Your task to perform on an android device: Open Chrome and go to settings Image 0: 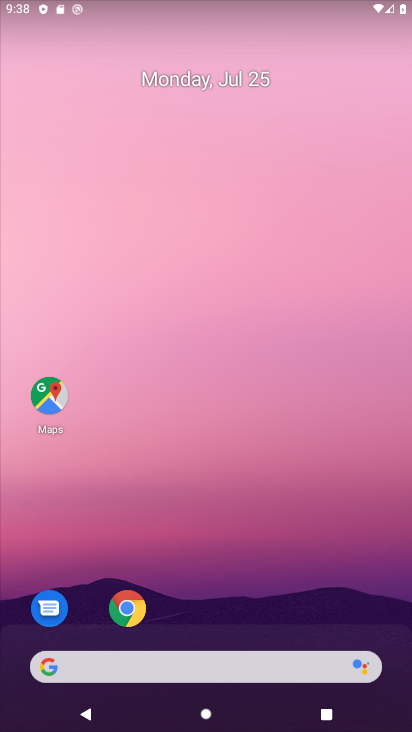
Step 0: drag from (177, 598) to (255, 17)
Your task to perform on an android device: Open Chrome and go to settings Image 1: 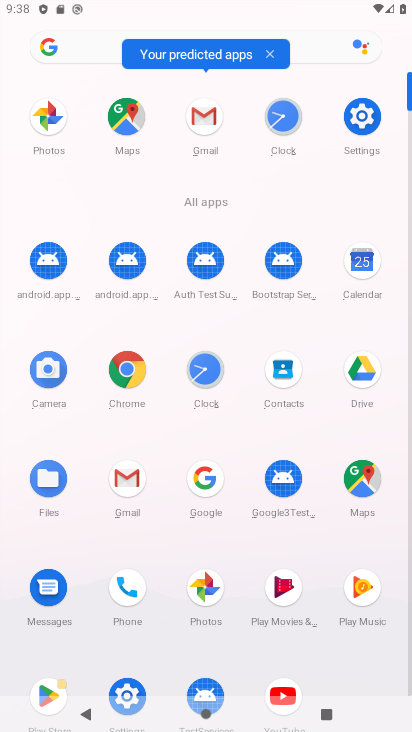
Step 1: click (125, 378)
Your task to perform on an android device: Open Chrome and go to settings Image 2: 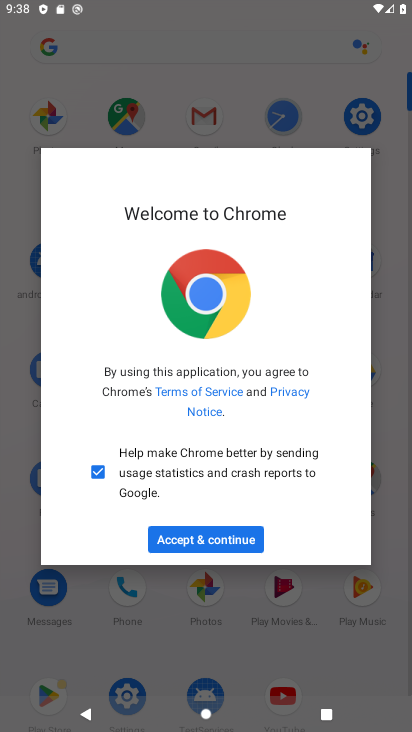
Step 2: click (199, 545)
Your task to perform on an android device: Open Chrome and go to settings Image 3: 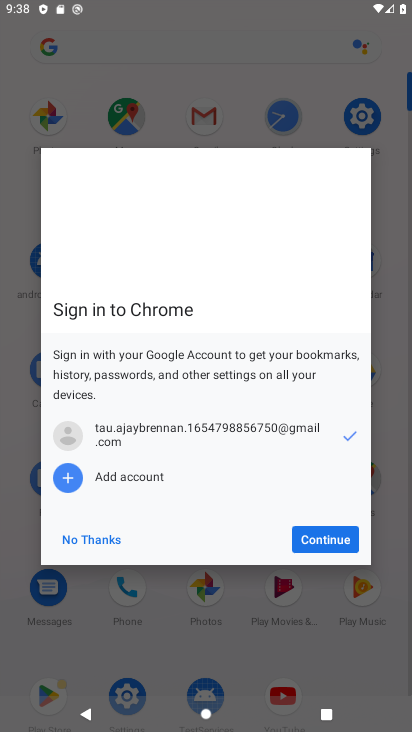
Step 3: click (330, 539)
Your task to perform on an android device: Open Chrome and go to settings Image 4: 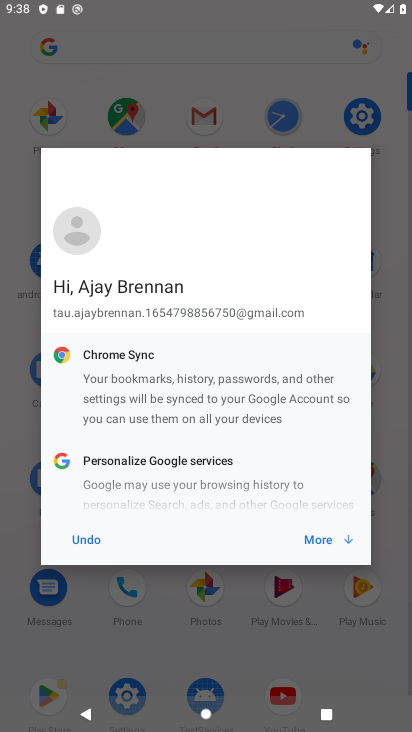
Step 4: click (324, 536)
Your task to perform on an android device: Open Chrome and go to settings Image 5: 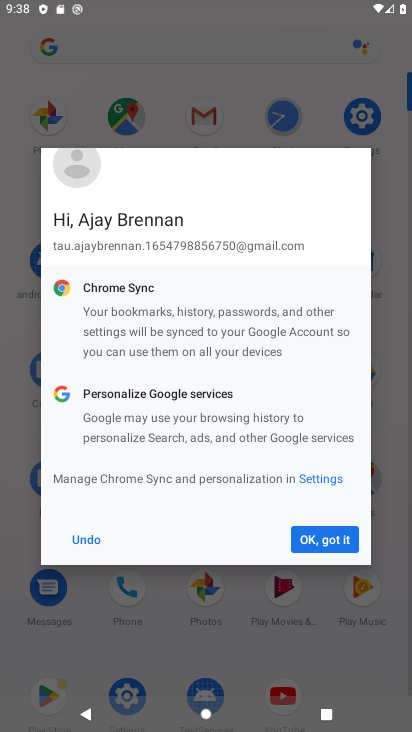
Step 5: click (324, 536)
Your task to perform on an android device: Open Chrome and go to settings Image 6: 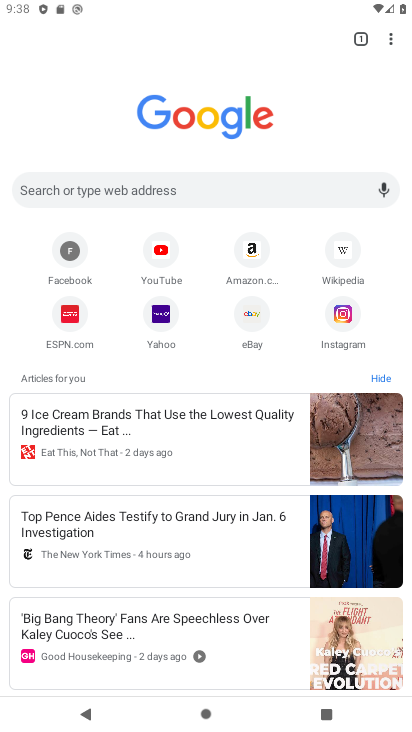
Step 6: click (392, 37)
Your task to perform on an android device: Open Chrome and go to settings Image 7: 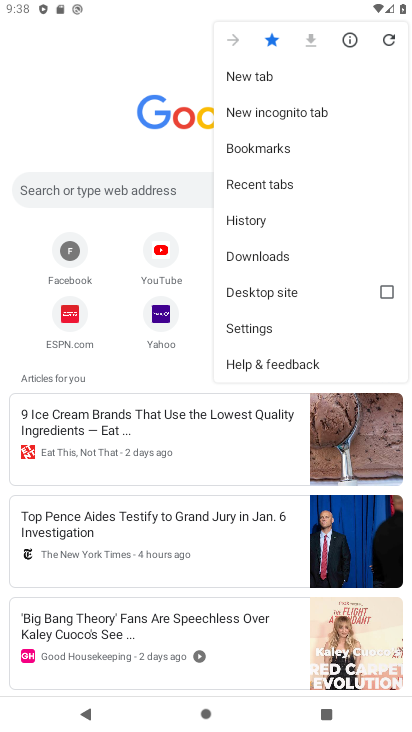
Step 7: click (240, 329)
Your task to perform on an android device: Open Chrome and go to settings Image 8: 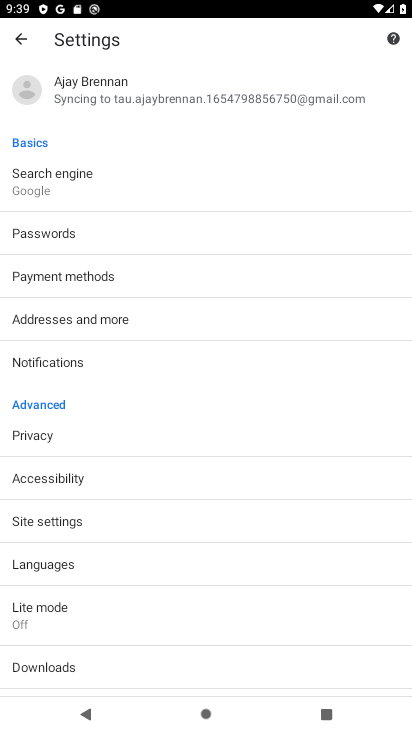
Step 8: task complete